Your task to perform on an android device: open wifi settings Image 0: 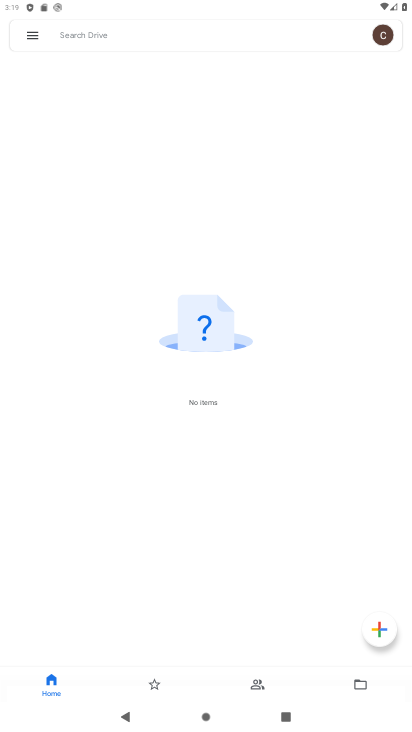
Step 0: drag from (108, 4) to (132, 583)
Your task to perform on an android device: open wifi settings Image 1: 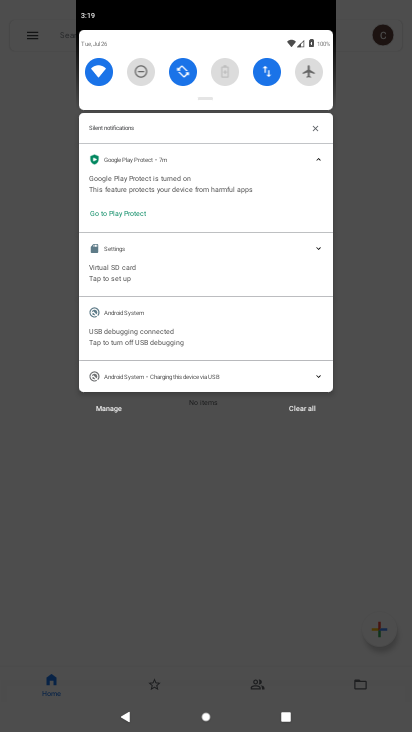
Step 1: click (103, 77)
Your task to perform on an android device: open wifi settings Image 2: 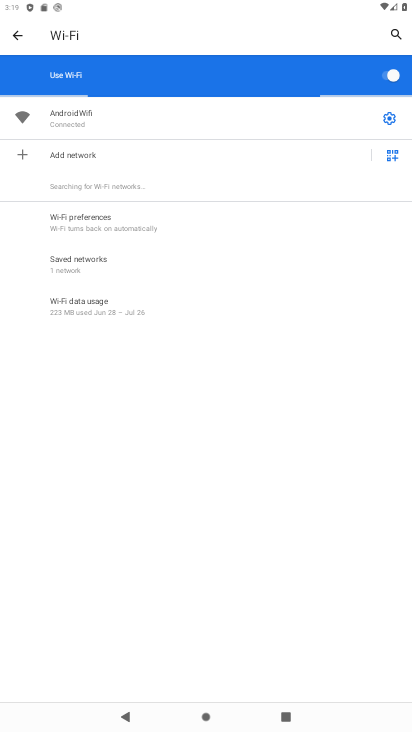
Step 2: task complete